Your task to perform on an android device: Open Android settings Image 0: 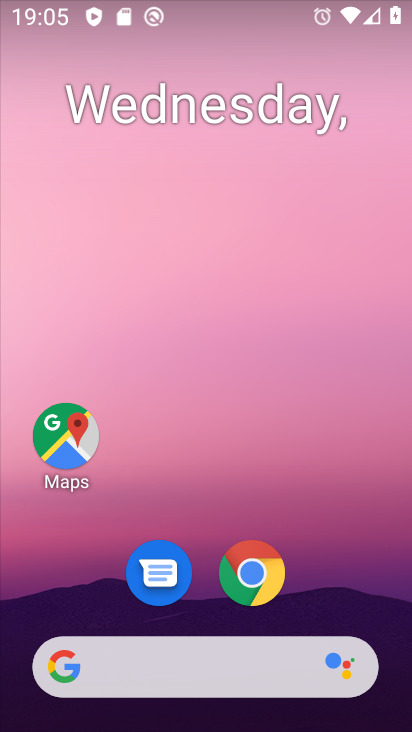
Step 0: drag from (376, 573) to (350, 84)
Your task to perform on an android device: Open Android settings Image 1: 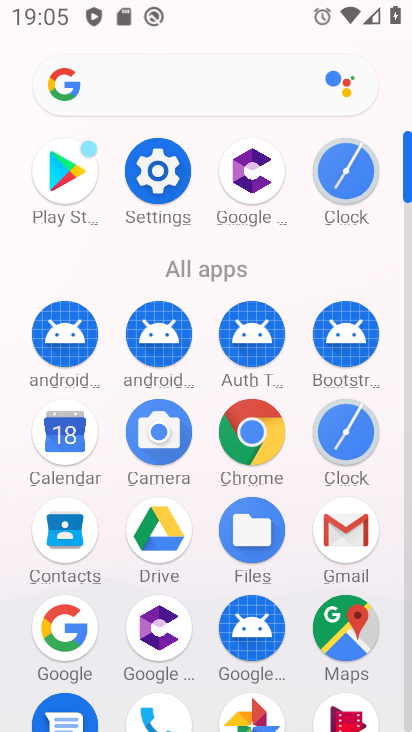
Step 1: click (169, 184)
Your task to perform on an android device: Open Android settings Image 2: 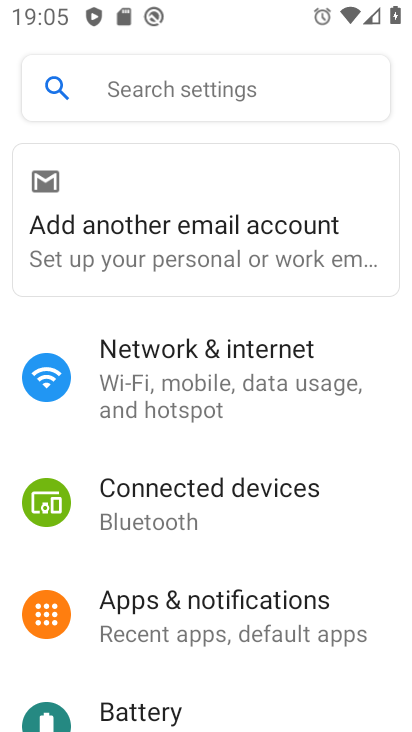
Step 2: task complete